Your task to perform on an android device: Open the map Image 0: 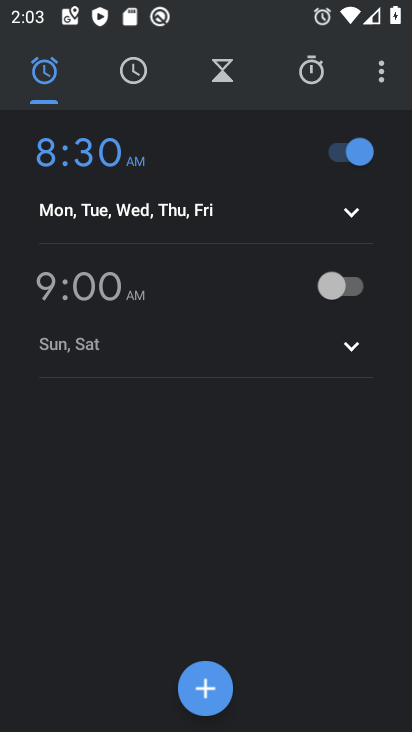
Step 0: press home button
Your task to perform on an android device: Open the map Image 1: 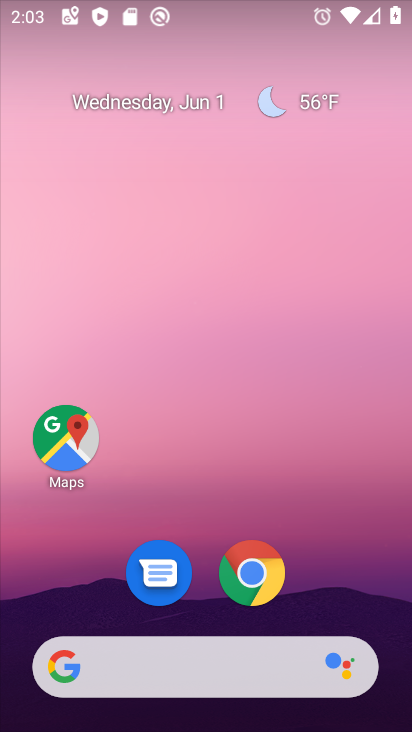
Step 1: drag from (362, 572) to (278, 40)
Your task to perform on an android device: Open the map Image 2: 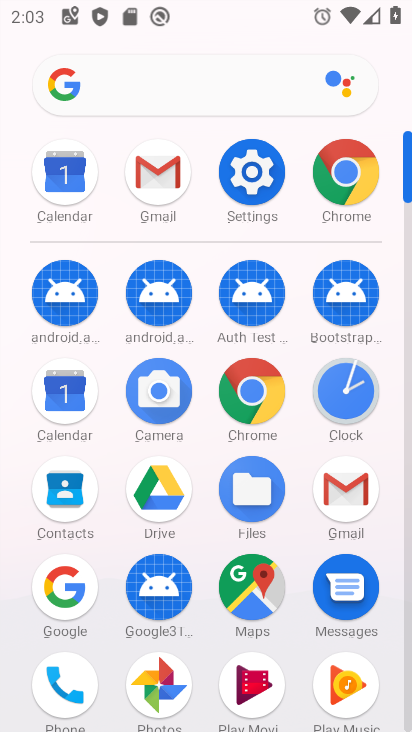
Step 2: click (251, 594)
Your task to perform on an android device: Open the map Image 3: 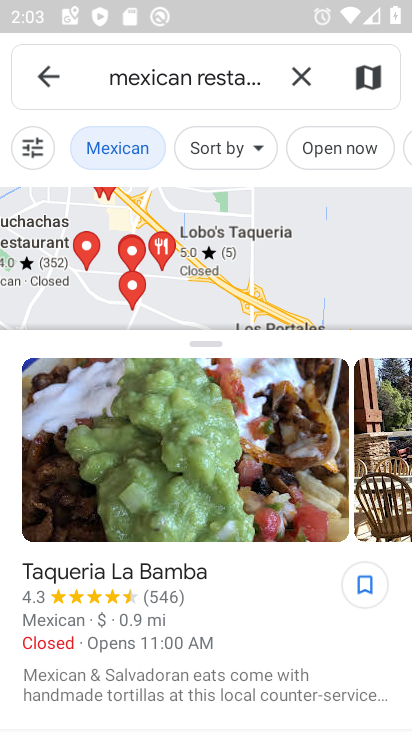
Step 3: task complete